Your task to perform on an android device: Go to Google maps Image 0: 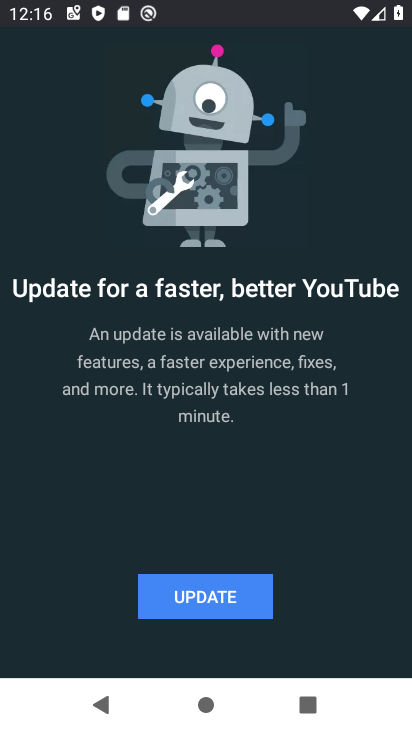
Step 0: press home button
Your task to perform on an android device: Go to Google maps Image 1: 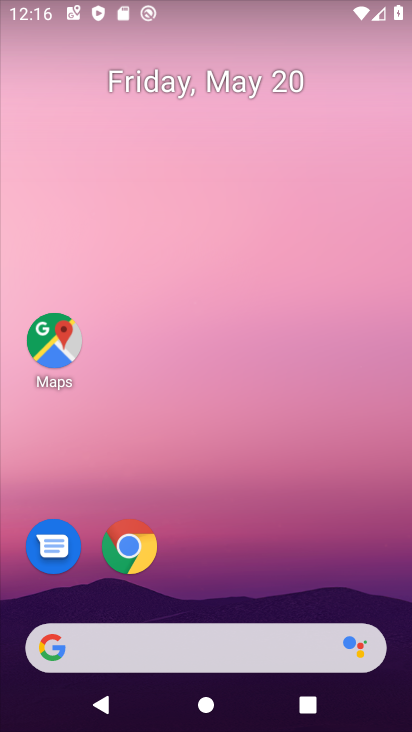
Step 1: click (51, 341)
Your task to perform on an android device: Go to Google maps Image 2: 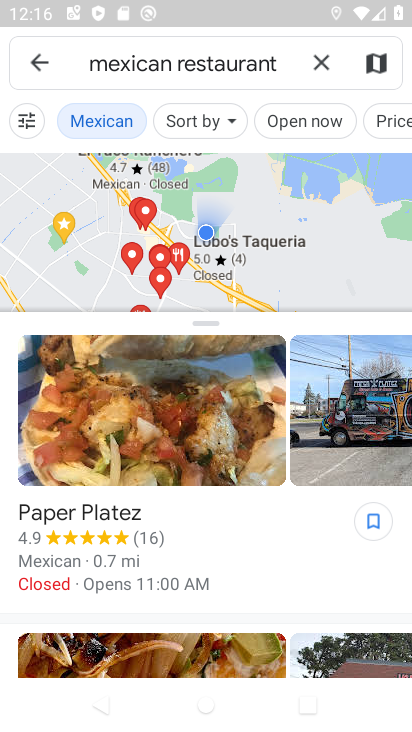
Step 2: click (316, 59)
Your task to perform on an android device: Go to Google maps Image 3: 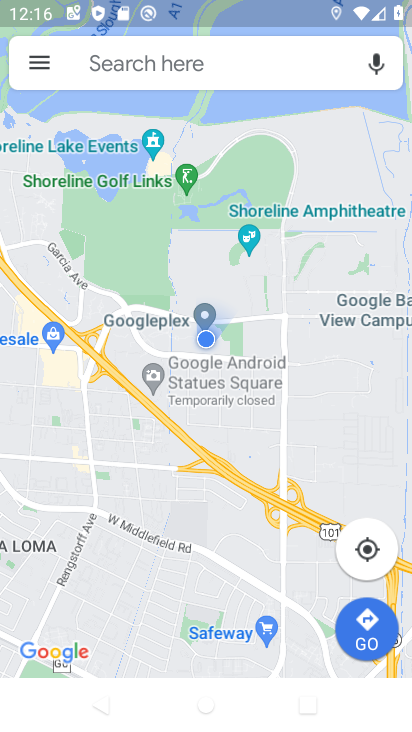
Step 3: task complete